Your task to perform on an android device: remove spam from my inbox in the gmail app Image 0: 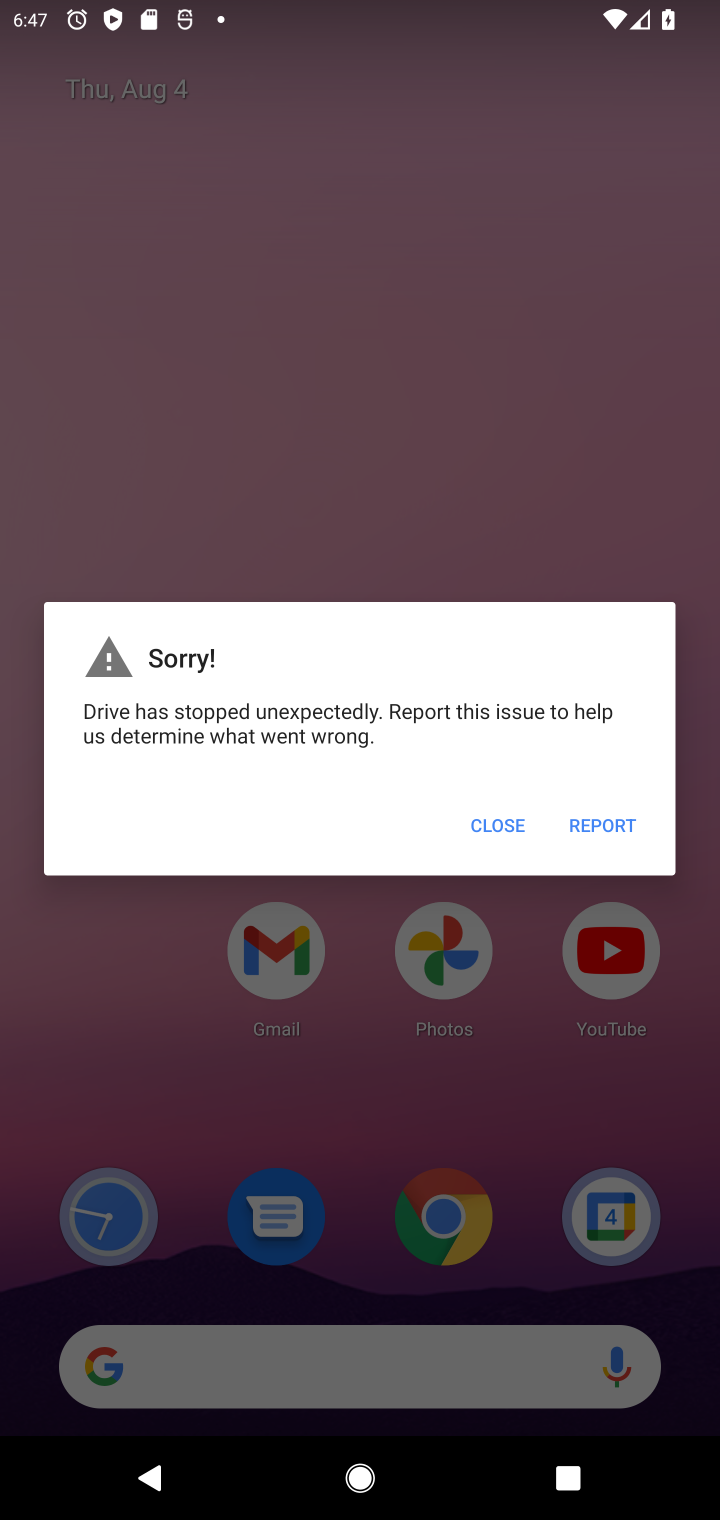
Step 0: press home button
Your task to perform on an android device: remove spam from my inbox in the gmail app Image 1: 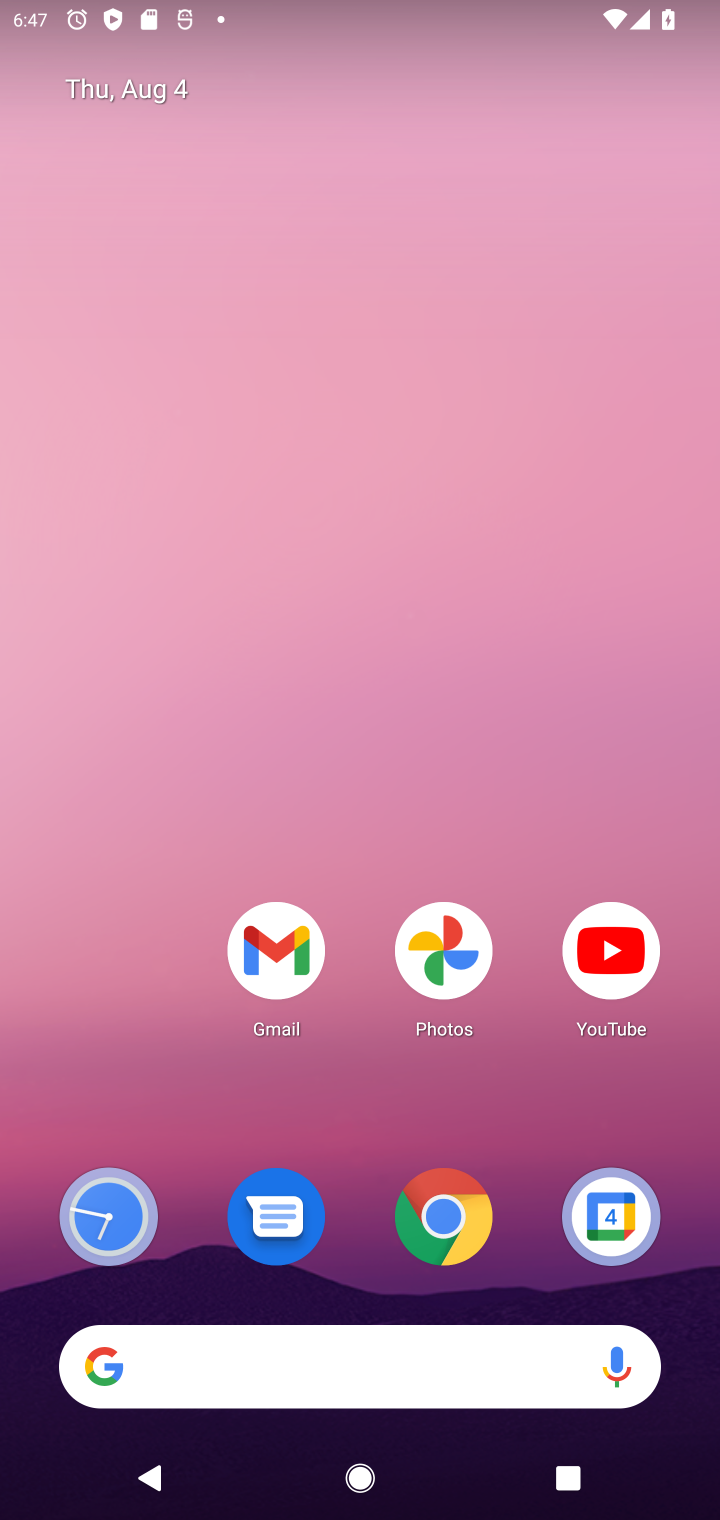
Step 1: click (297, 975)
Your task to perform on an android device: remove spam from my inbox in the gmail app Image 2: 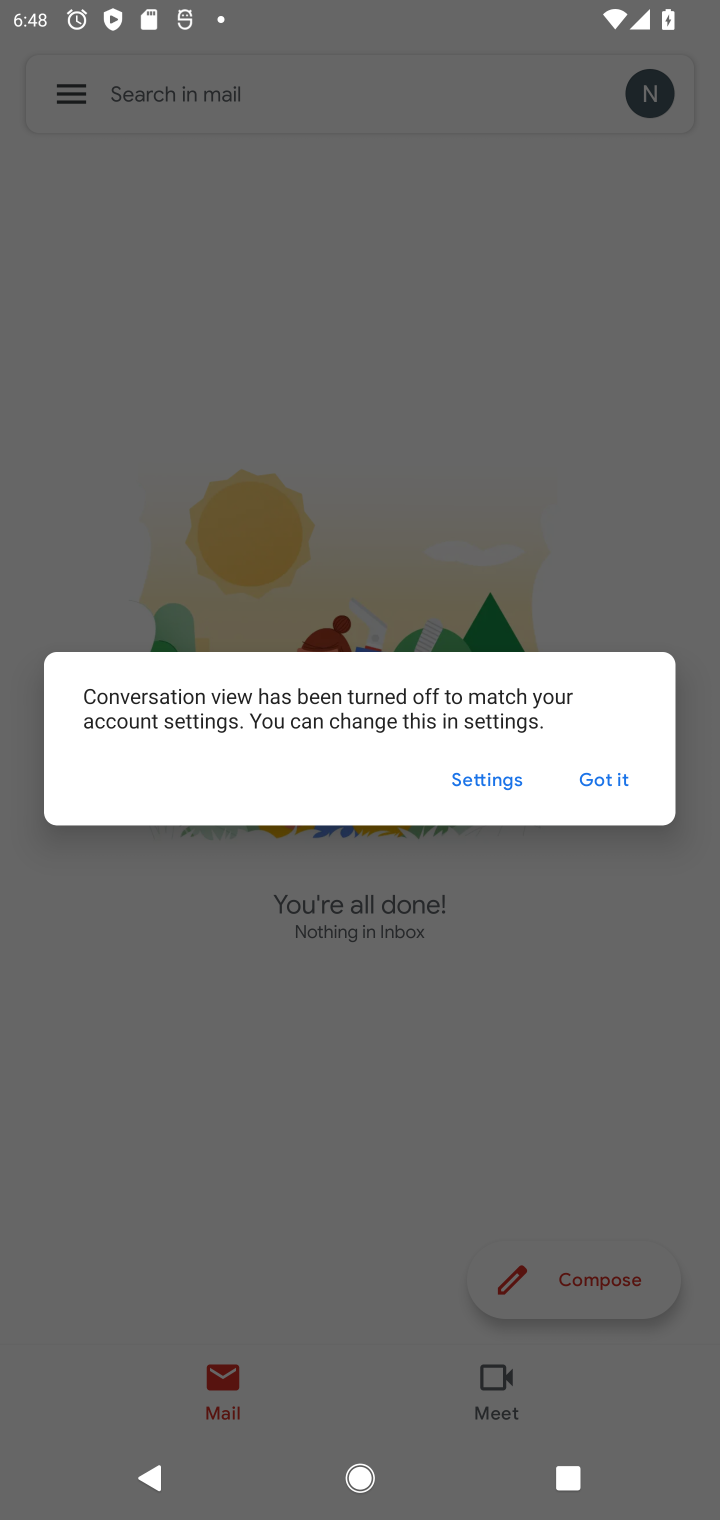
Step 2: click (589, 768)
Your task to perform on an android device: remove spam from my inbox in the gmail app Image 3: 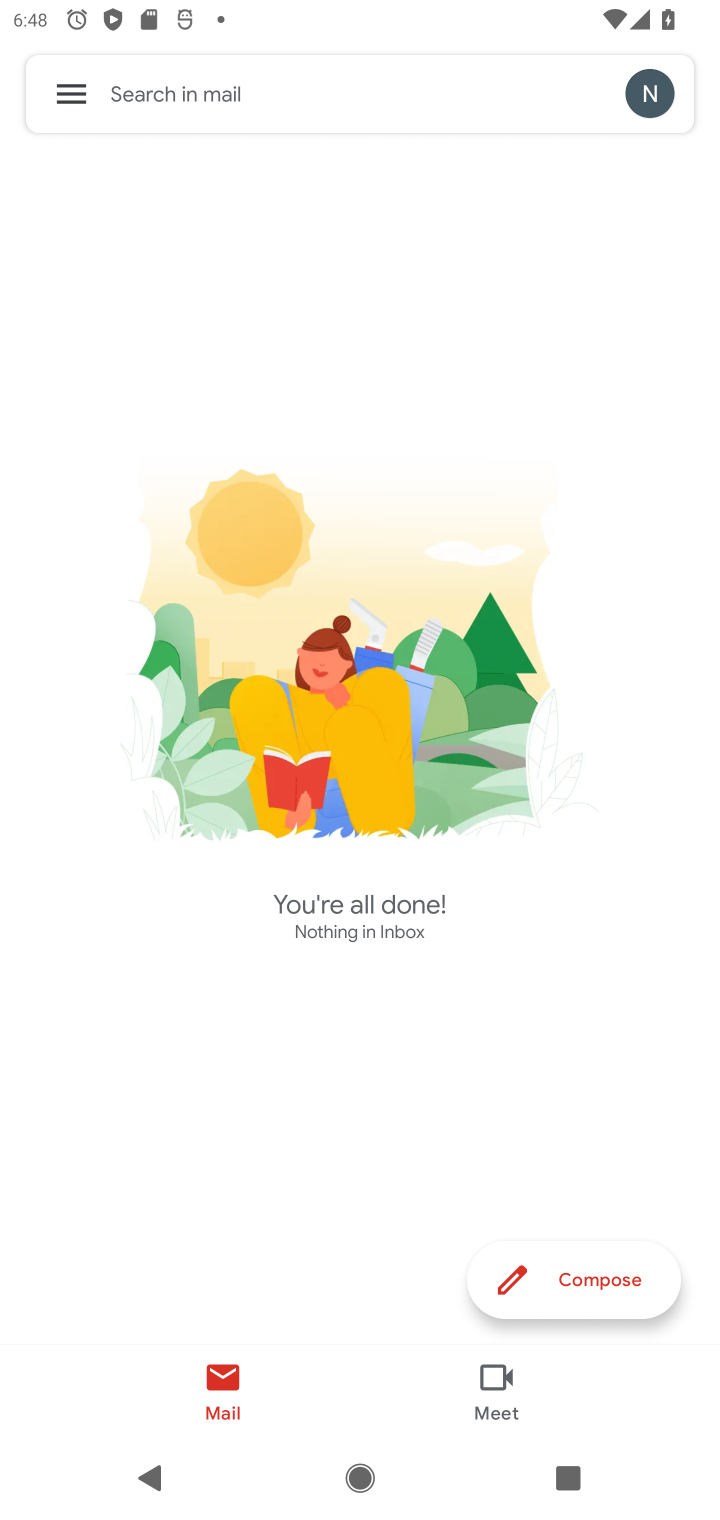
Step 3: click (63, 106)
Your task to perform on an android device: remove spam from my inbox in the gmail app Image 4: 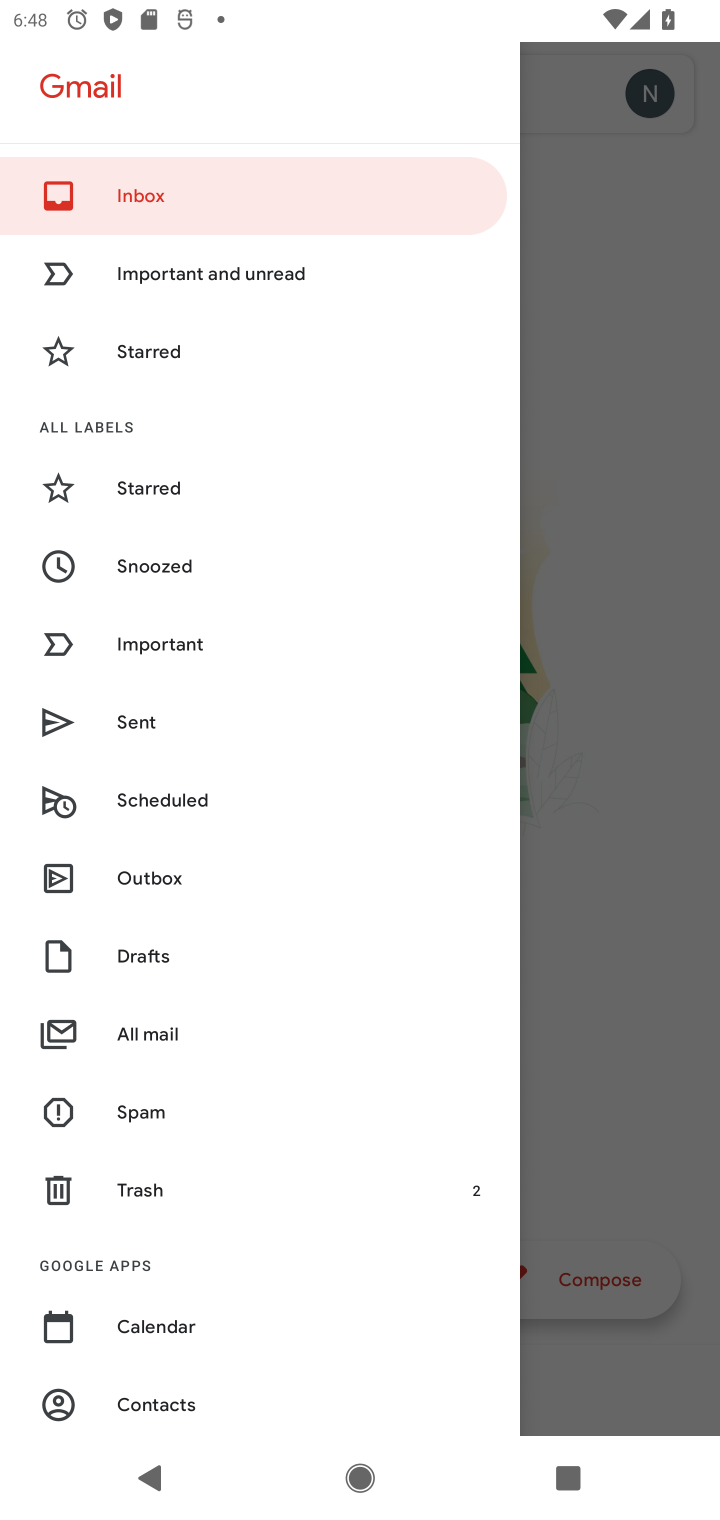
Step 4: click (168, 1100)
Your task to perform on an android device: remove spam from my inbox in the gmail app Image 5: 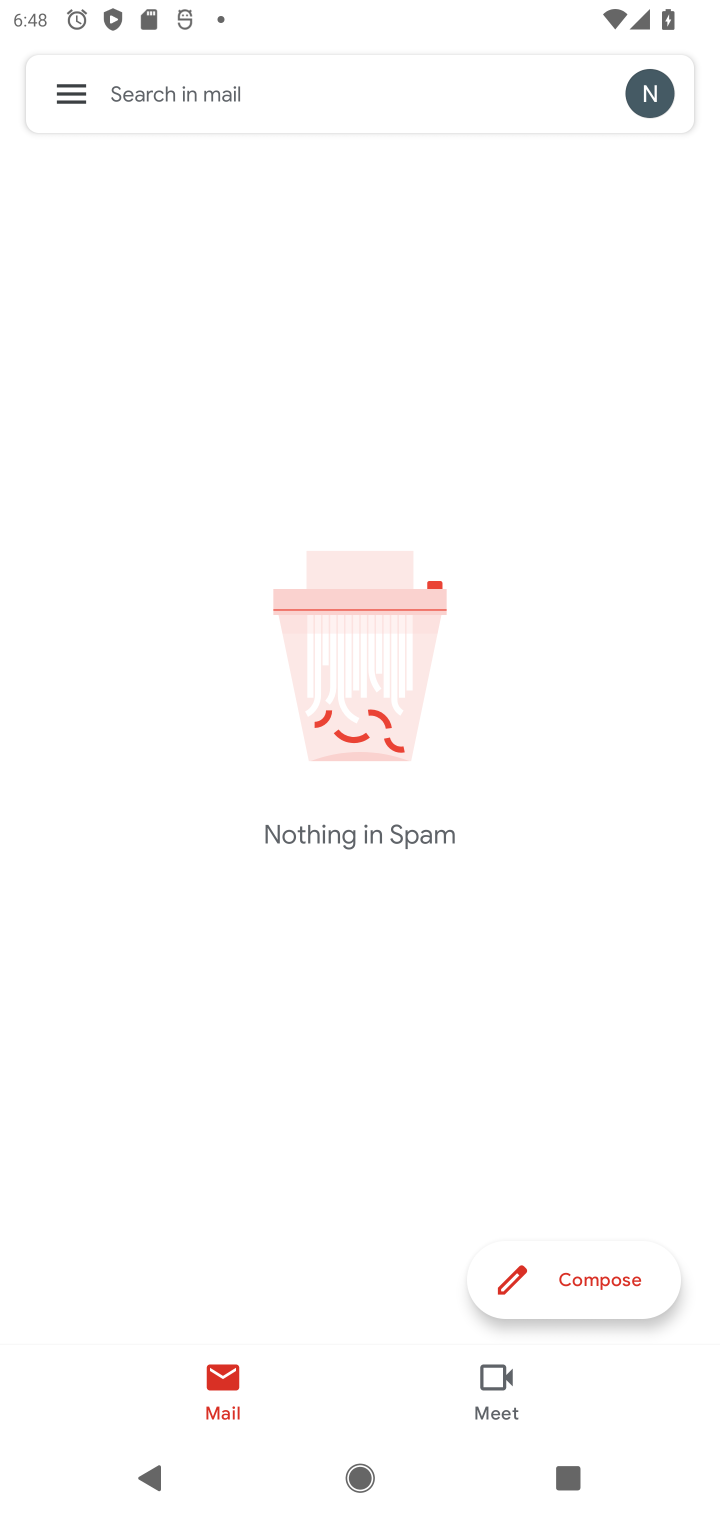
Step 5: task complete